Your task to perform on an android device: open chrome privacy settings Image 0: 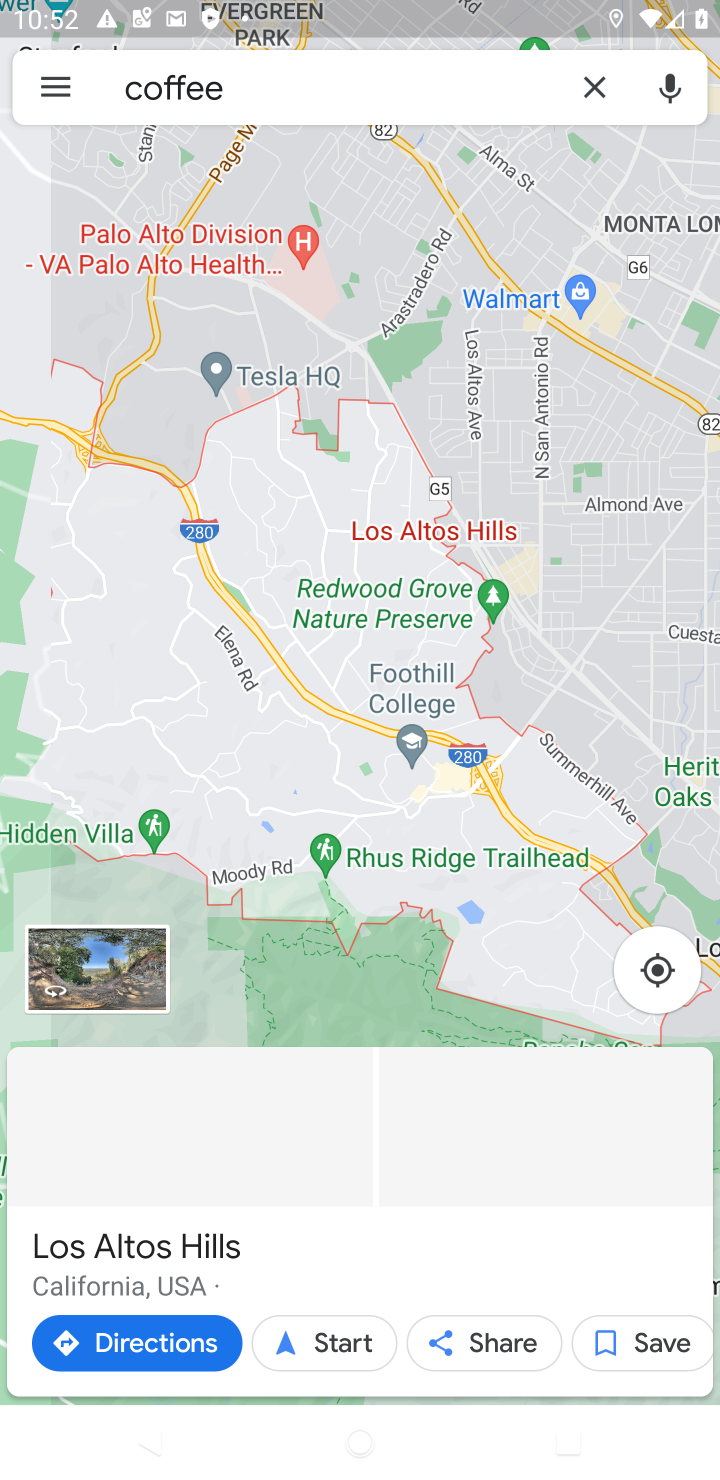
Step 0: press home button
Your task to perform on an android device: open chrome privacy settings Image 1: 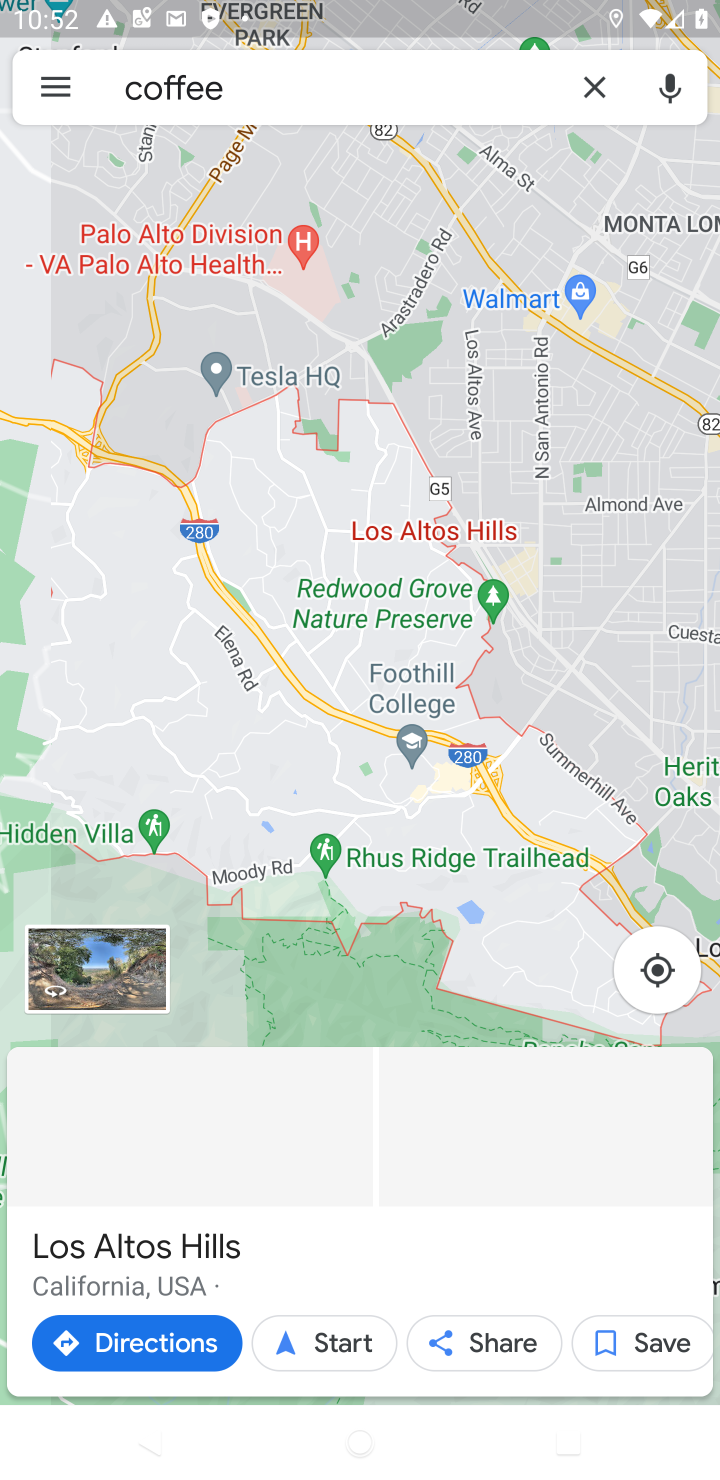
Step 1: click (429, 299)
Your task to perform on an android device: open chrome privacy settings Image 2: 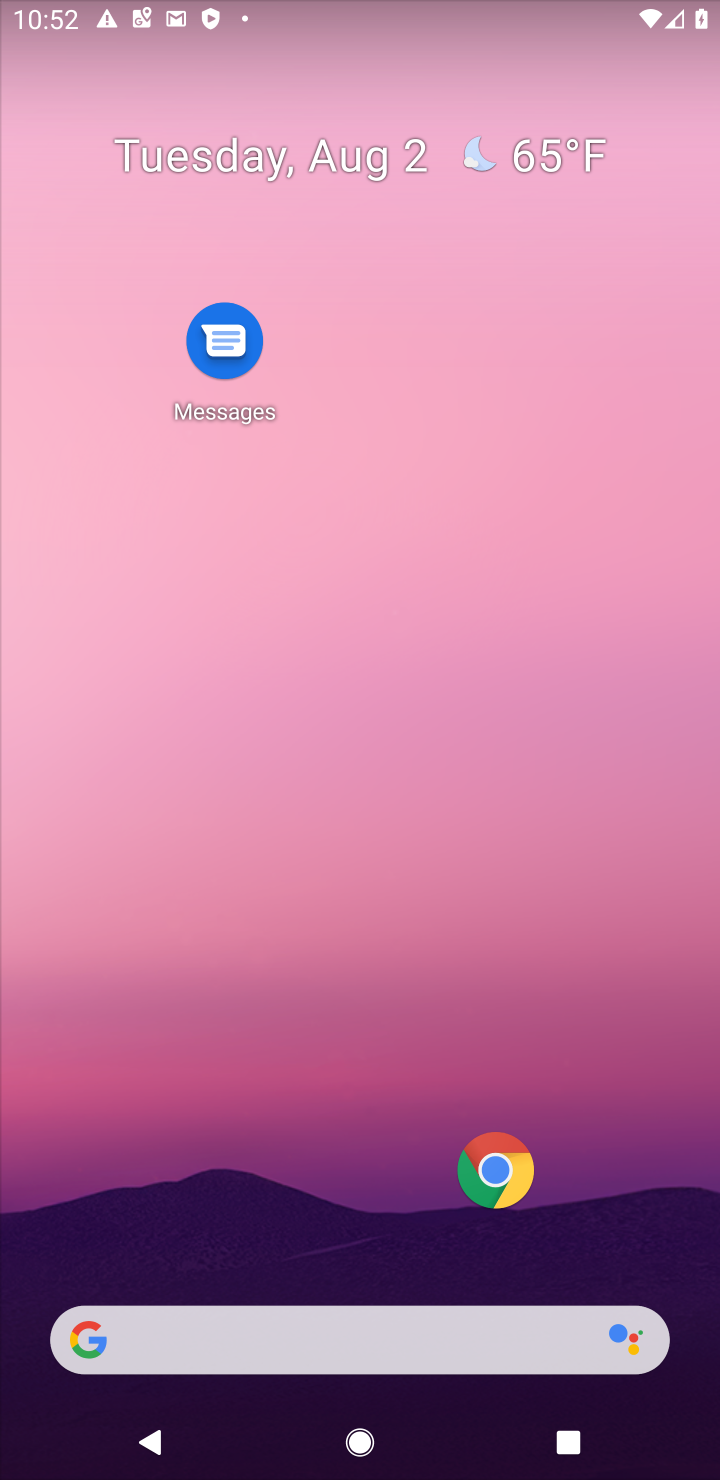
Step 2: press home button
Your task to perform on an android device: open chrome privacy settings Image 3: 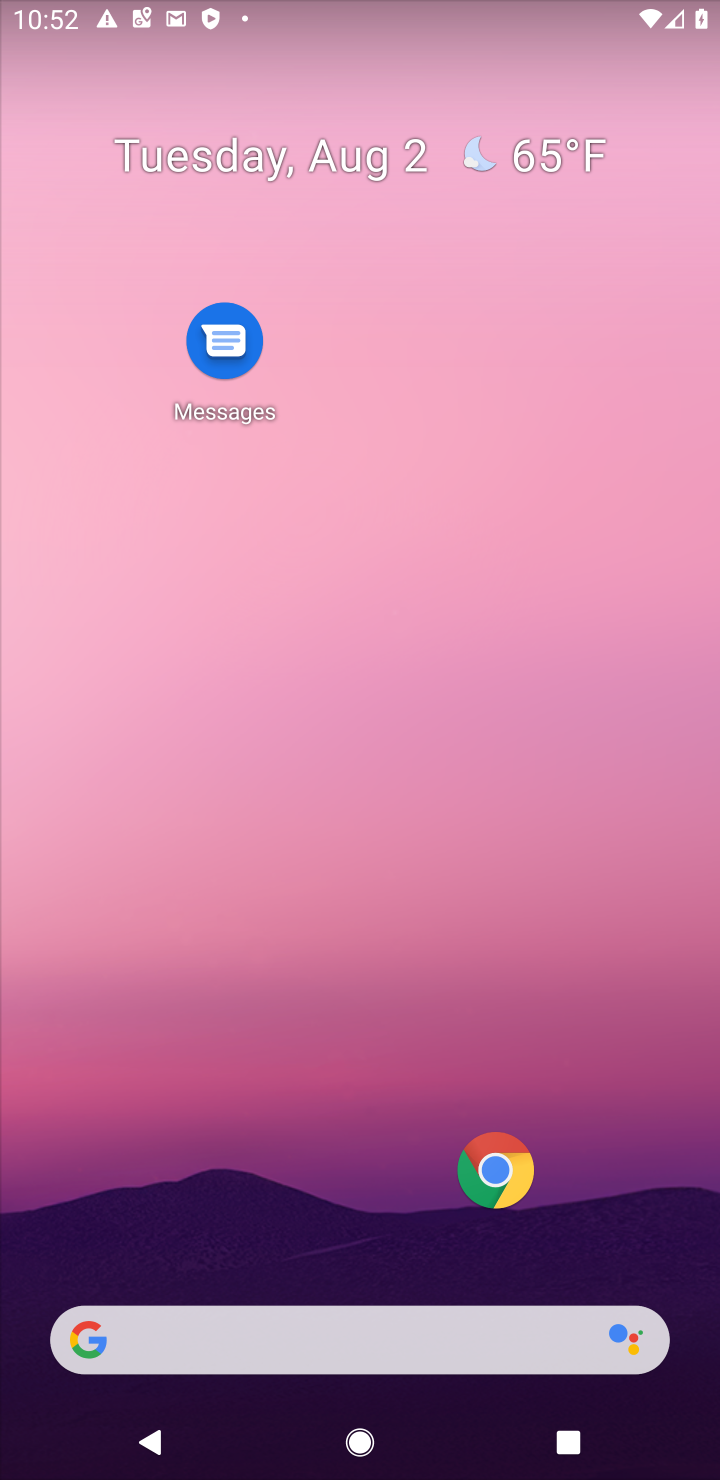
Step 3: drag from (331, 1180) to (343, 575)
Your task to perform on an android device: open chrome privacy settings Image 4: 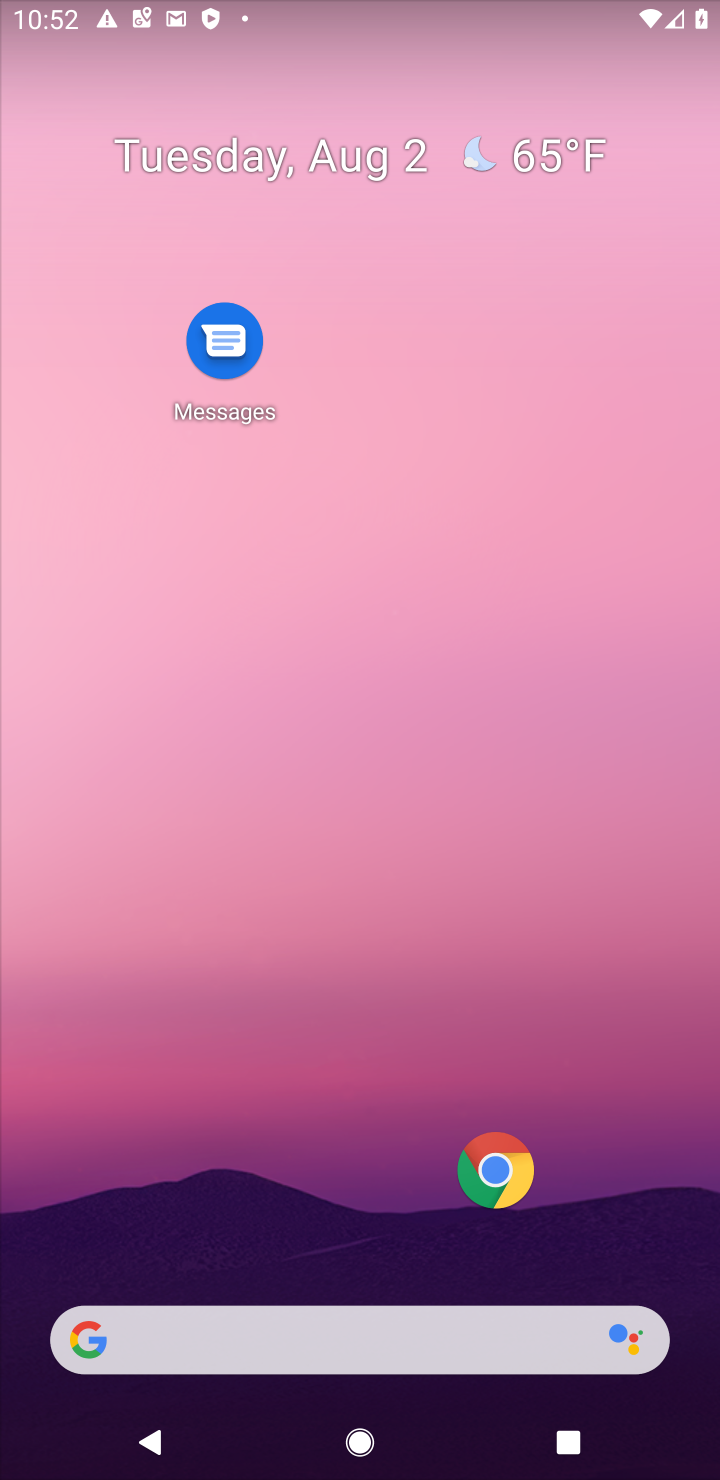
Step 4: drag from (420, 846) to (486, 280)
Your task to perform on an android device: open chrome privacy settings Image 5: 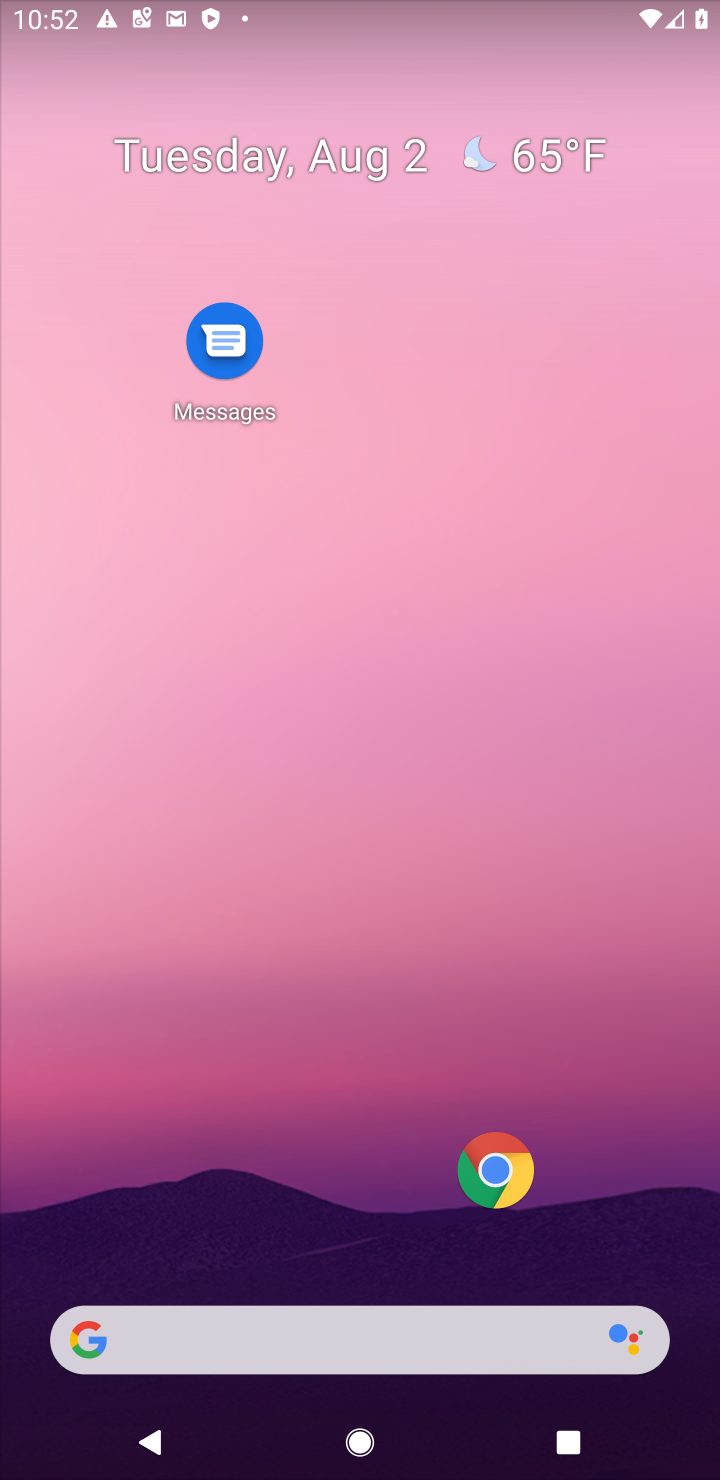
Step 5: drag from (325, 1106) to (601, 27)
Your task to perform on an android device: open chrome privacy settings Image 6: 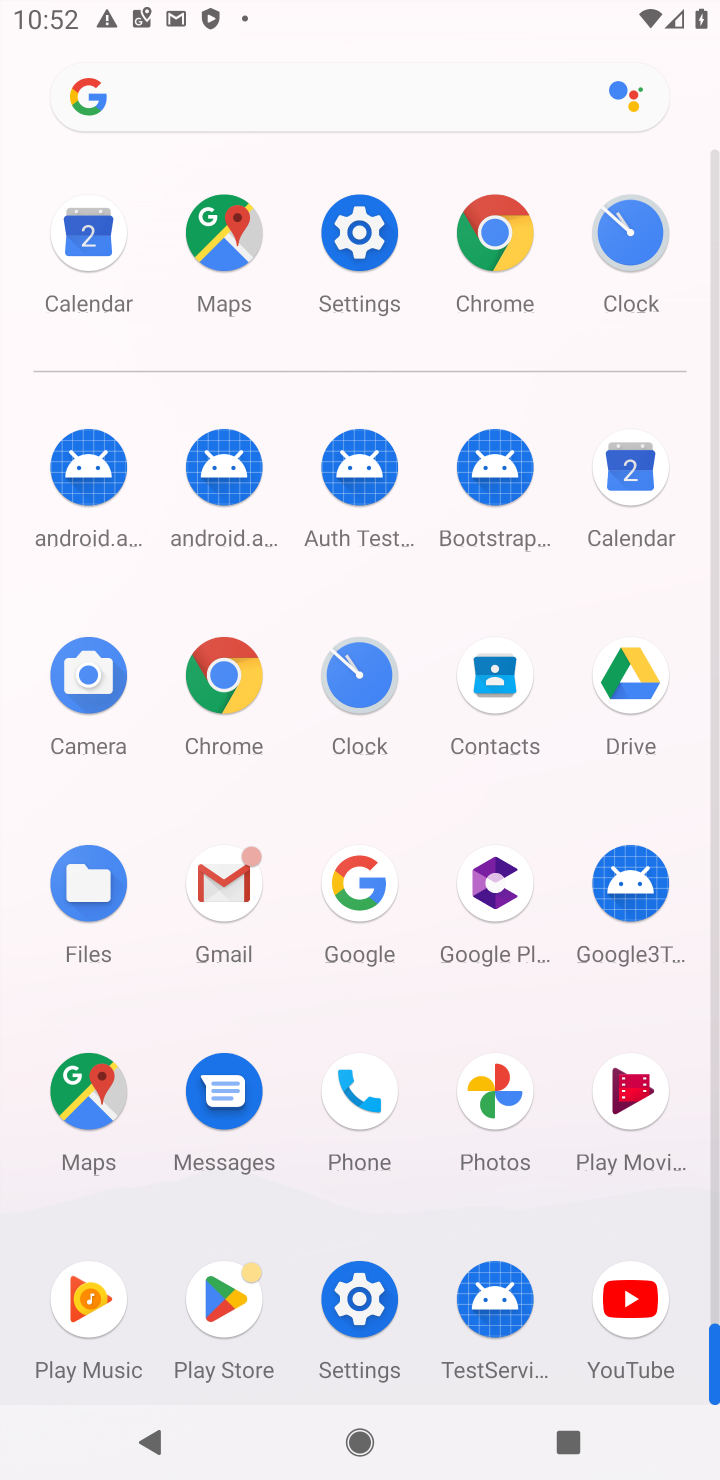
Step 6: click (346, 217)
Your task to perform on an android device: open chrome privacy settings Image 7: 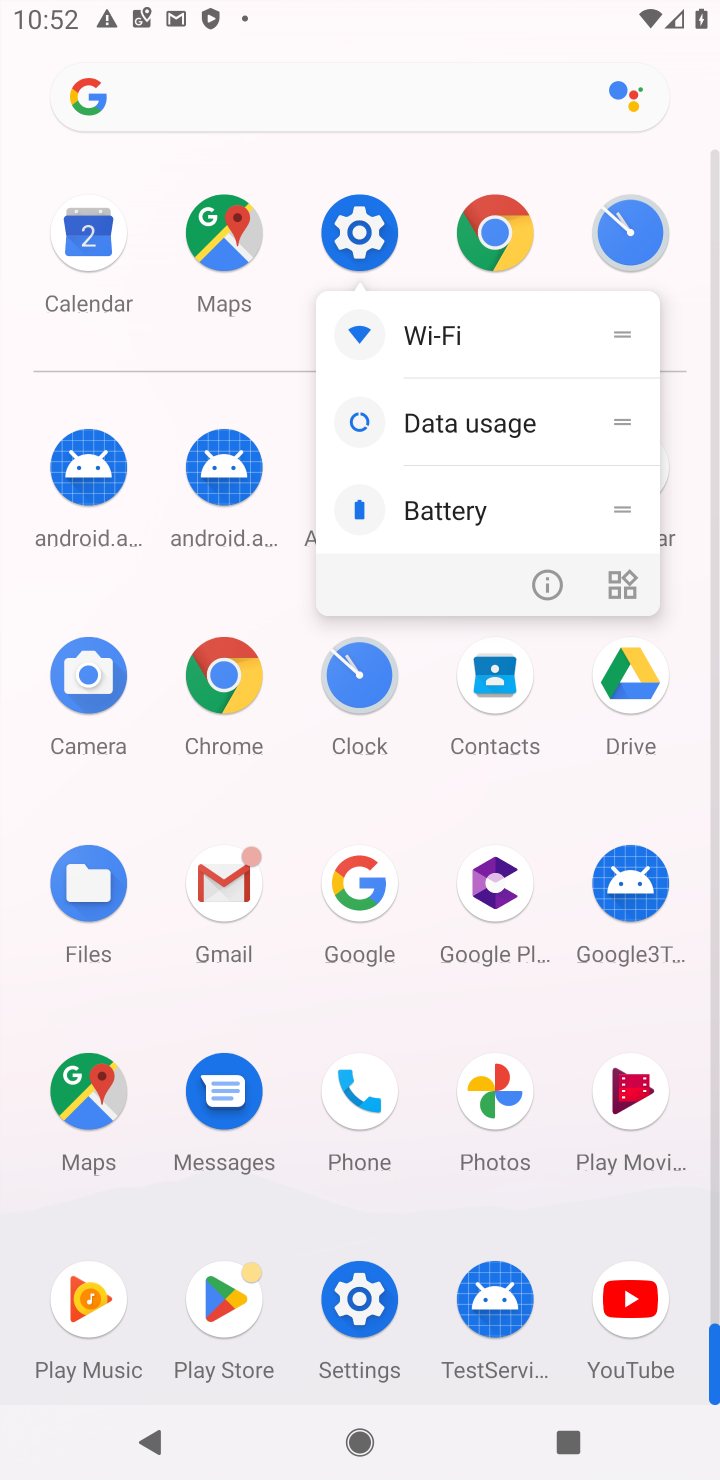
Step 7: click (557, 573)
Your task to perform on an android device: open chrome privacy settings Image 8: 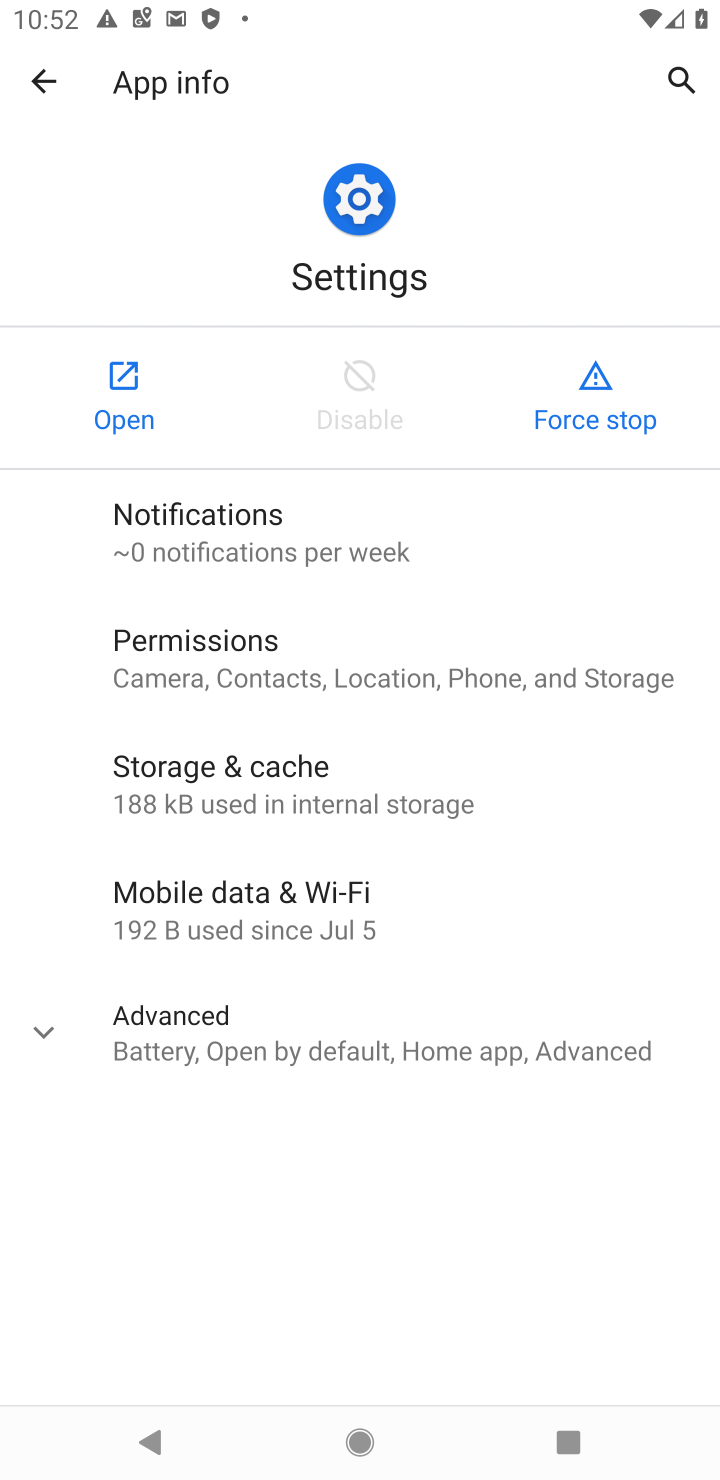
Step 8: click (120, 421)
Your task to perform on an android device: open chrome privacy settings Image 9: 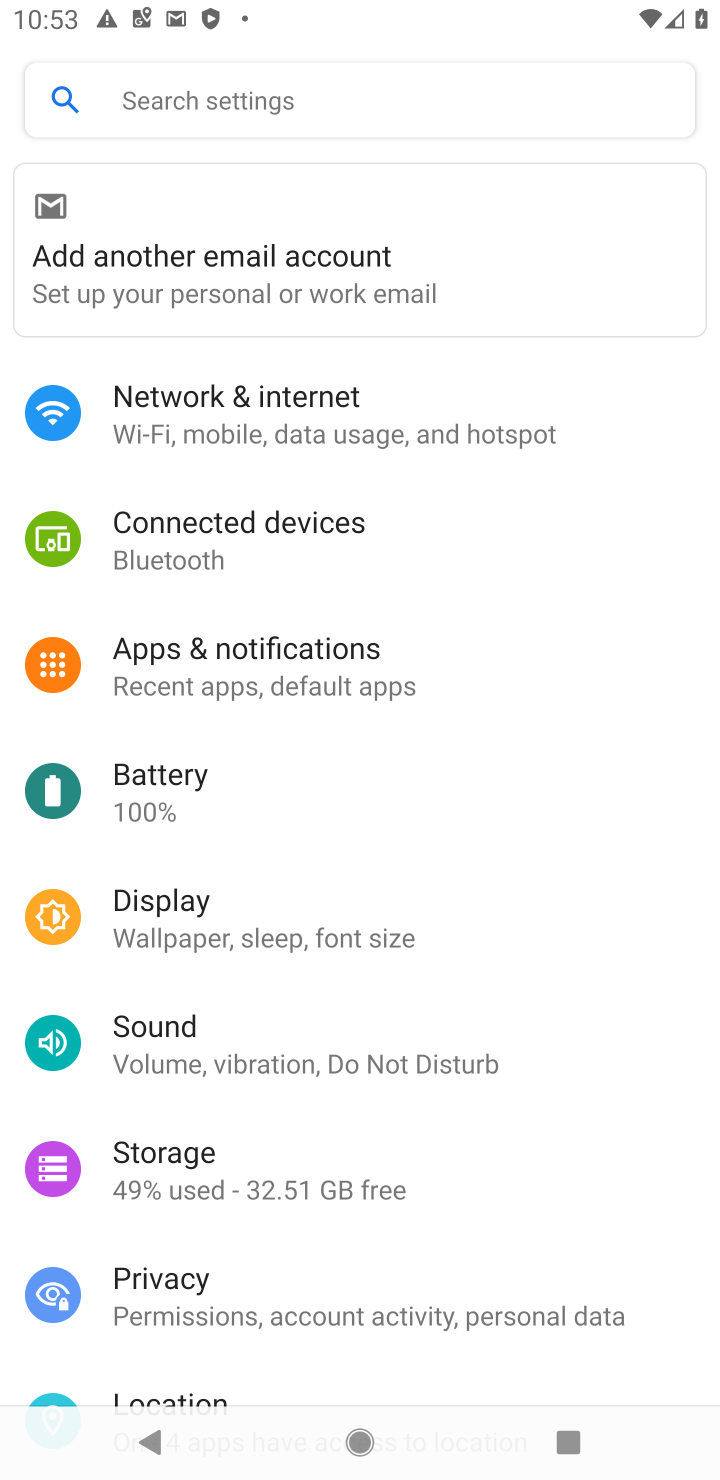
Step 9: press home button
Your task to perform on an android device: open chrome privacy settings Image 10: 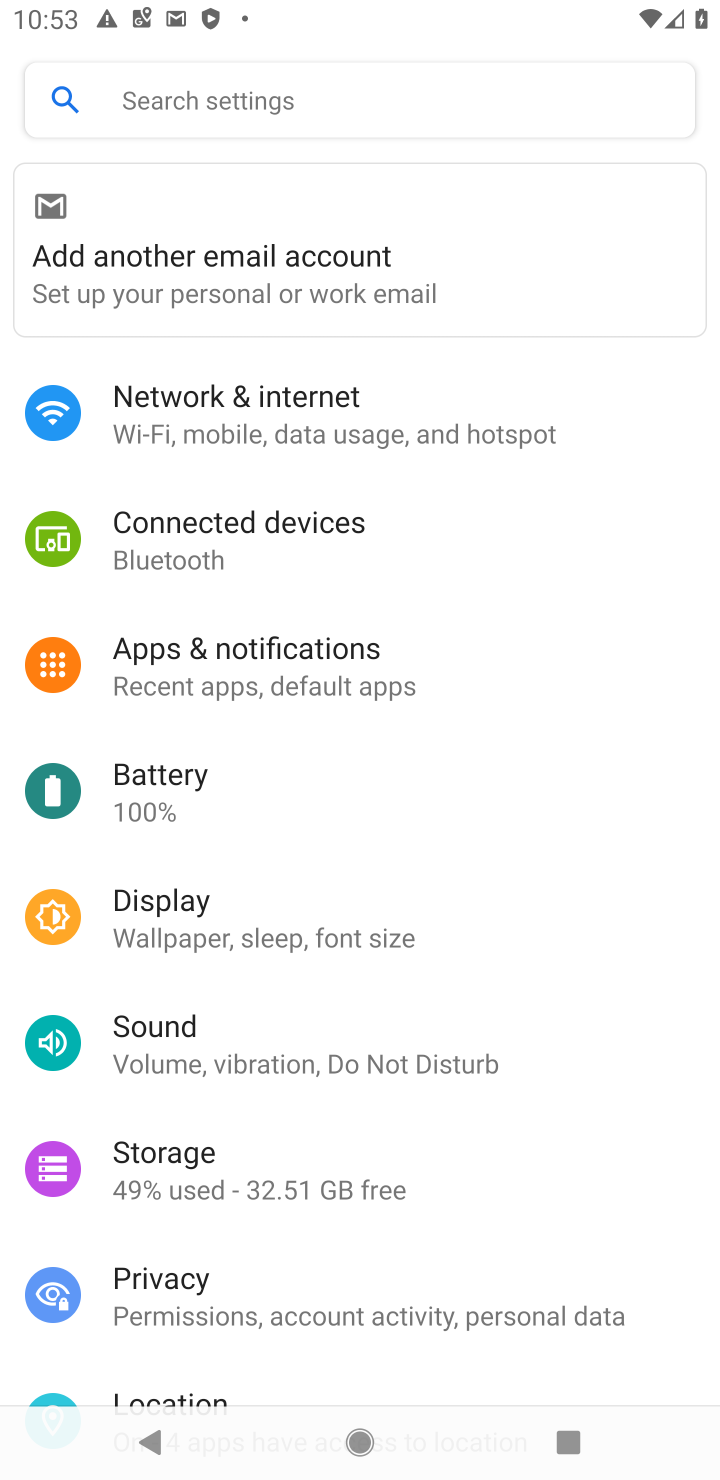
Step 10: drag from (310, 1295) to (330, 0)
Your task to perform on an android device: open chrome privacy settings Image 11: 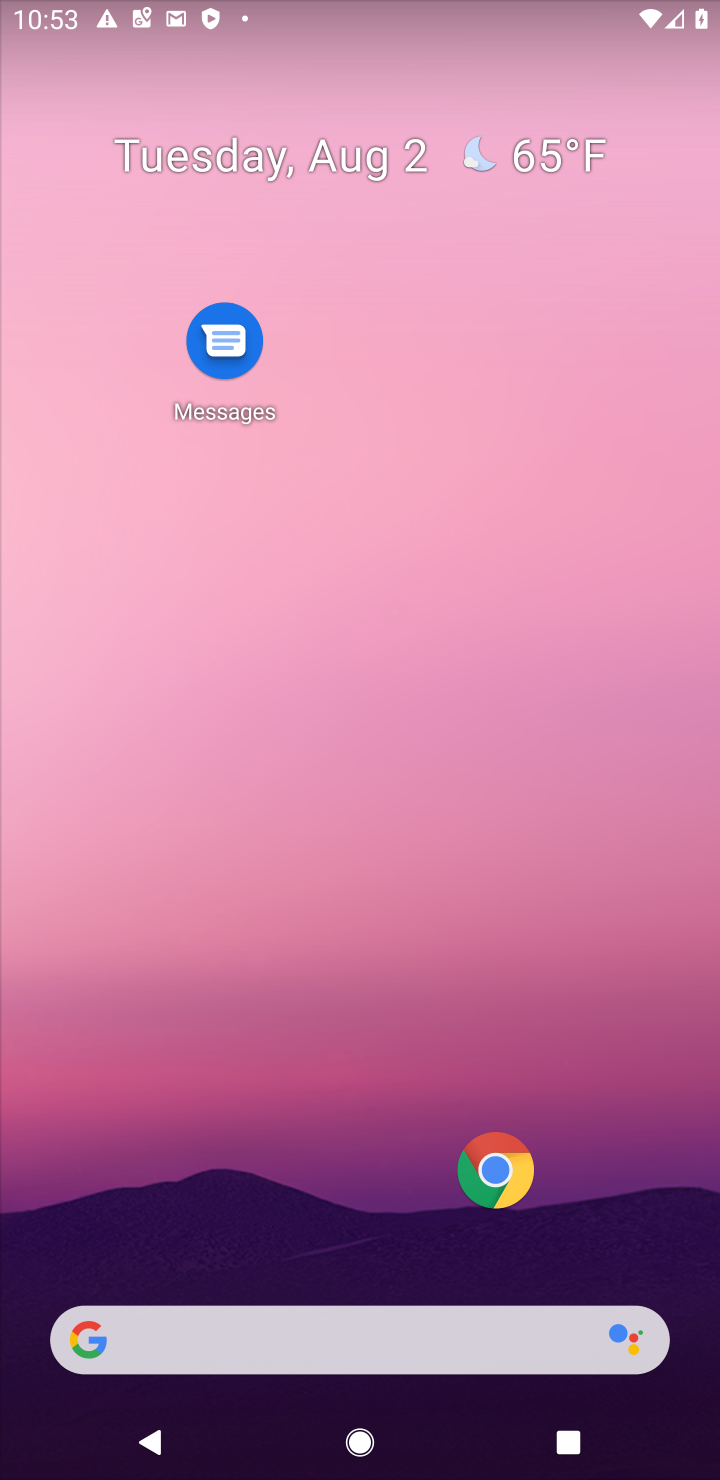
Step 11: click (502, 1172)
Your task to perform on an android device: open chrome privacy settings Image 12: 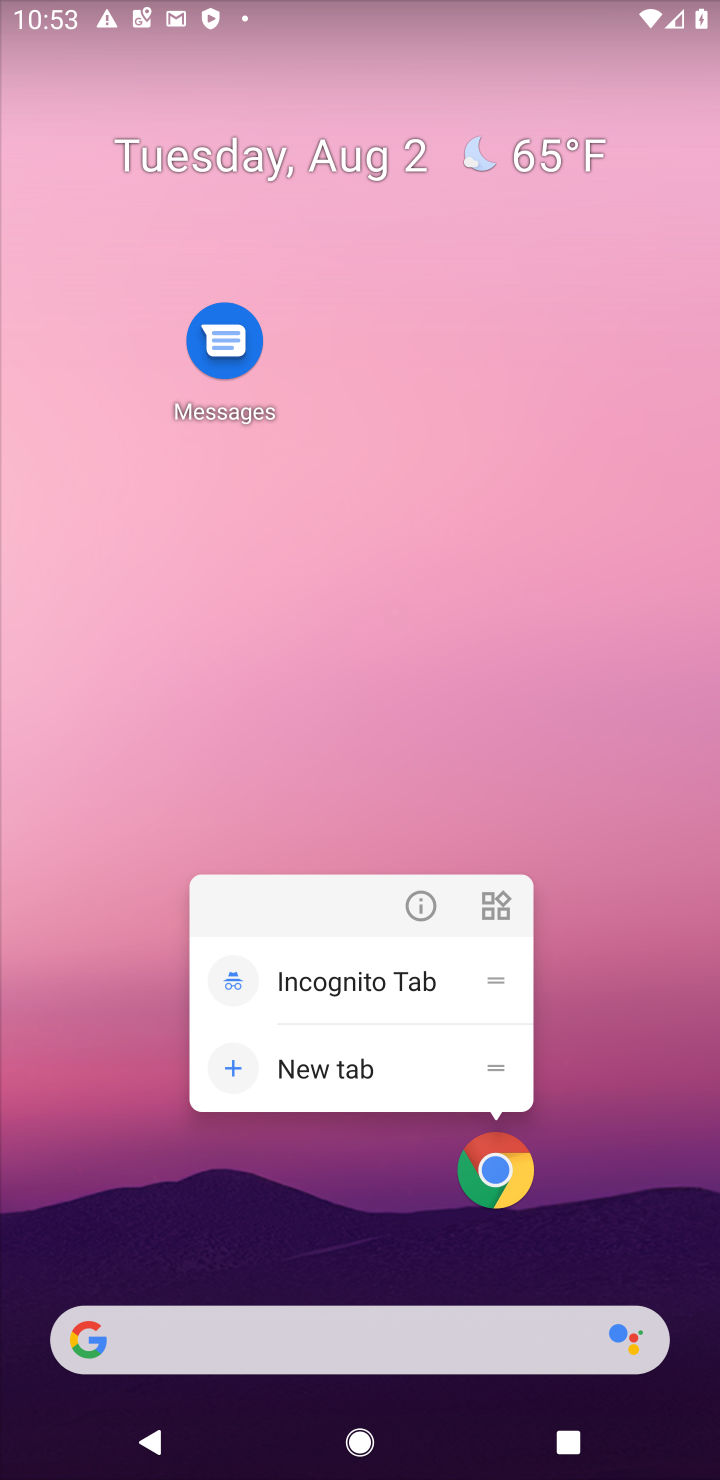
Step 12: click (421, 901)
Your task to perform on an android device: open chrome privacy settings Image 13: 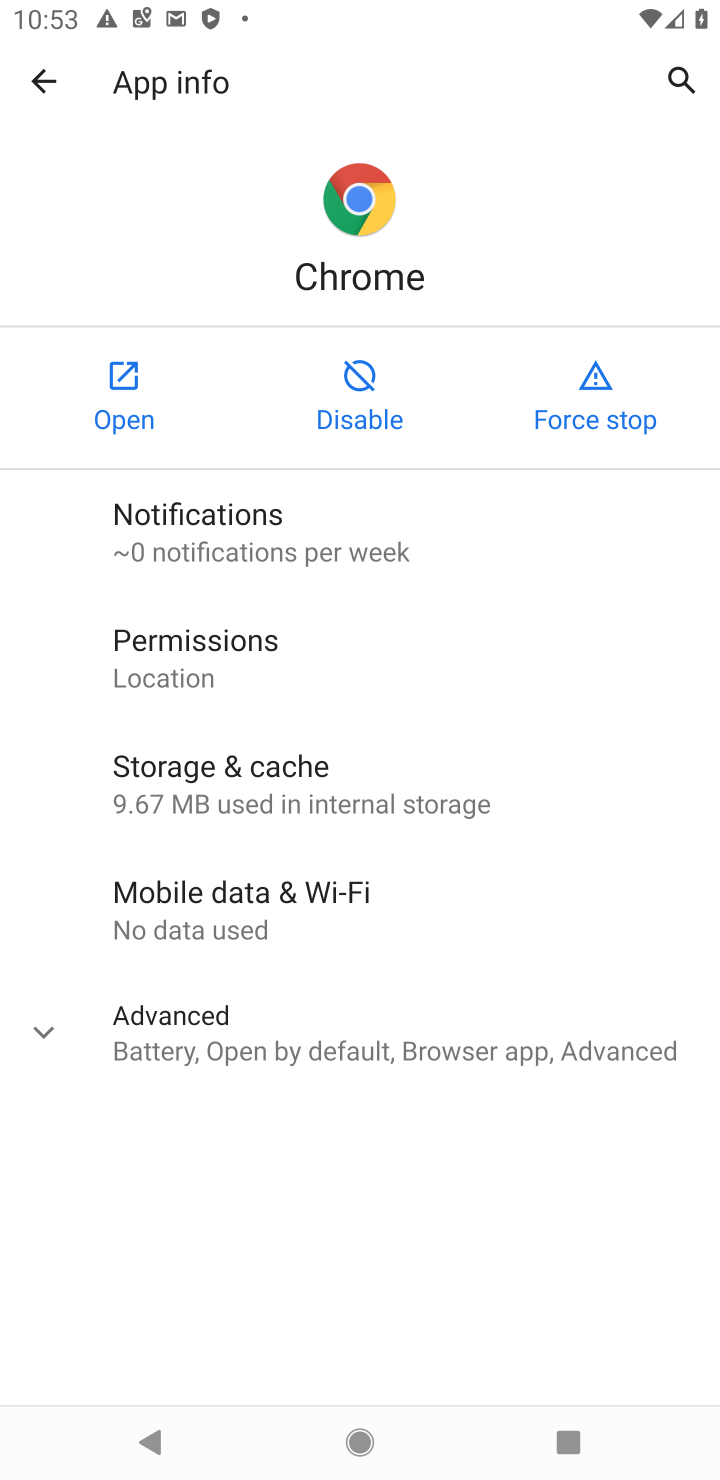
Step 13: click (107, 371)
Your task to perform on an android device: open chrome privacy settings Image 14: 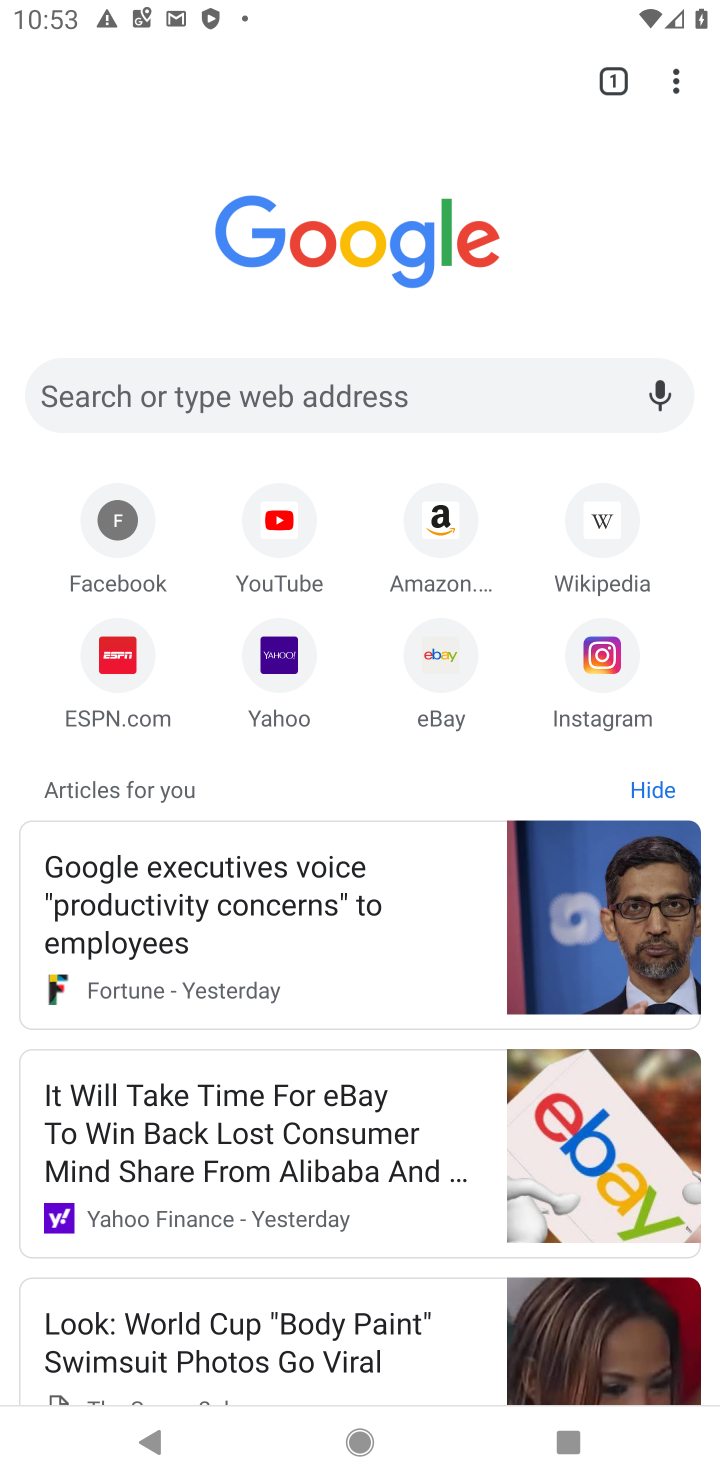
Step 14: drag from (678, 88) to (428, 791)
Your task to perform on an android device: open chrome privacy settings Image 15: 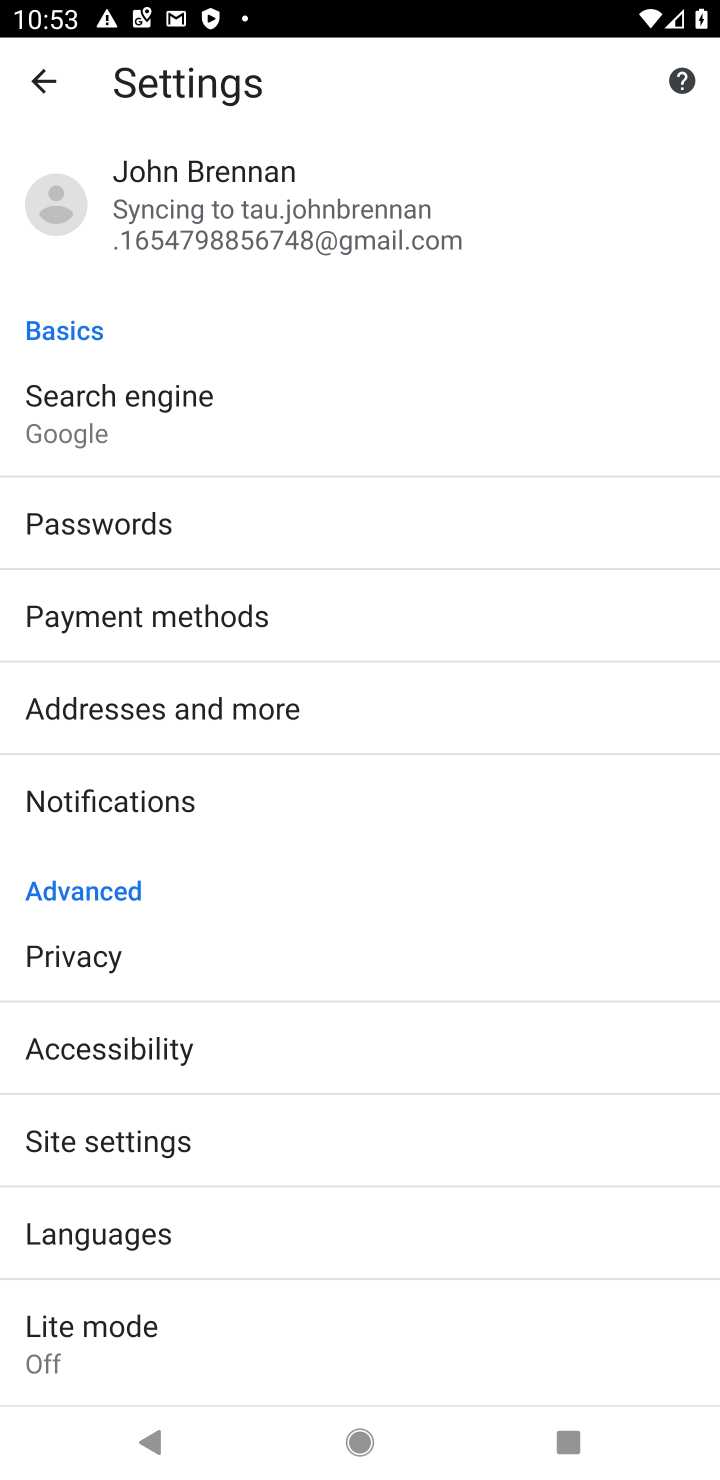
Step 15: click (162, 941)
Your task to perform on an android device: open chrome privacy settings Image 16: 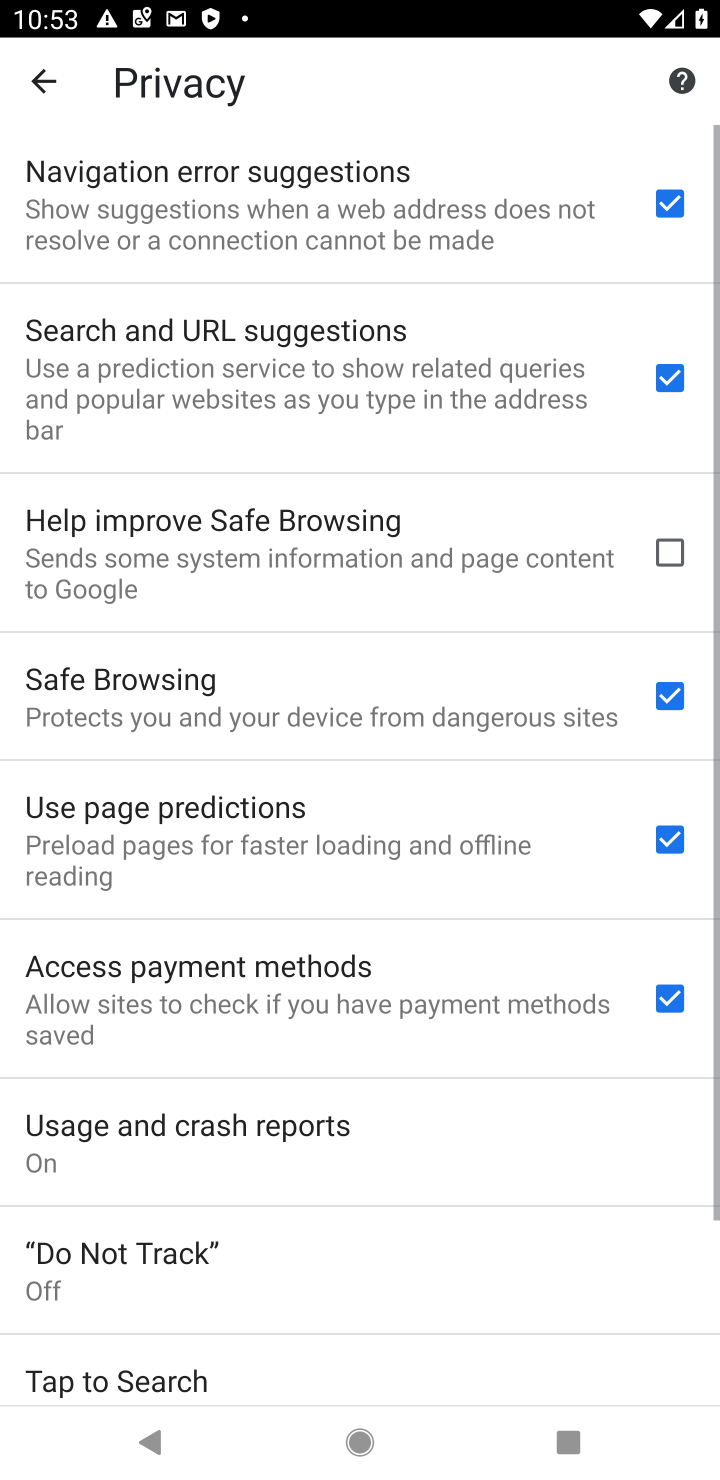
Step 16: task complete